Your task to perform on an android device: change text size in settings app Image 0: 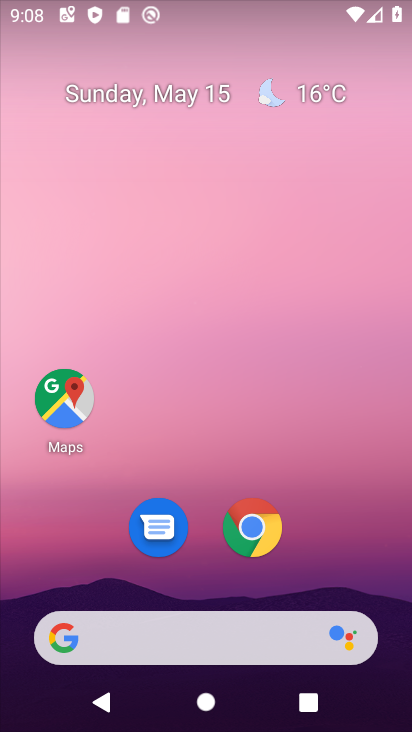
Step 0: drag from (396, 590) to (315, 12)
Your task to perform on an android device: change text size in settings app Image 1: 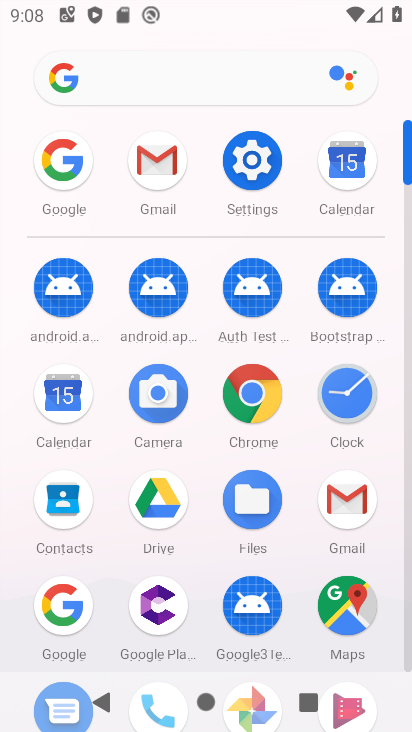
Step 1: click (254, 165)
Your task to perform on an android device: change text size in settings app Image 2: 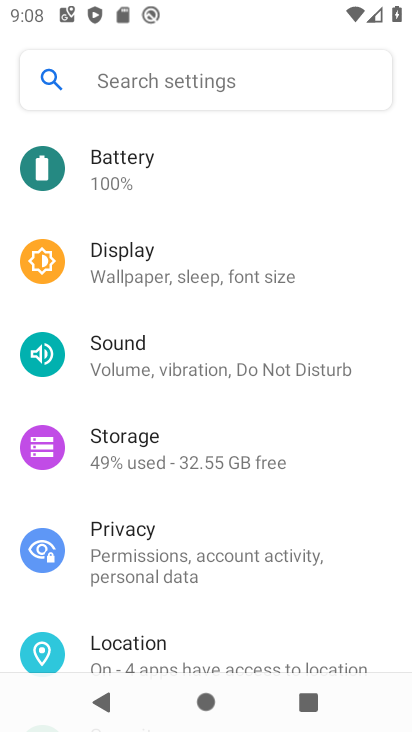
Step 2: click (95, 273)
Your task to perform on an android device: change text size in settings app Image 3: 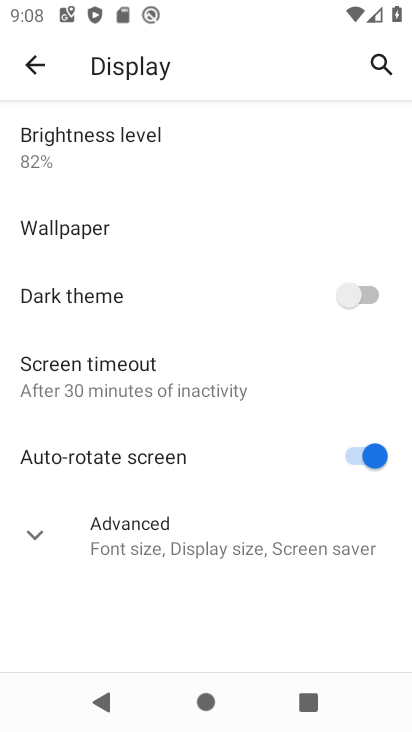
Step 3: click (33, 550)
Your task to perform on an android device: change text size in settings app Image 4: 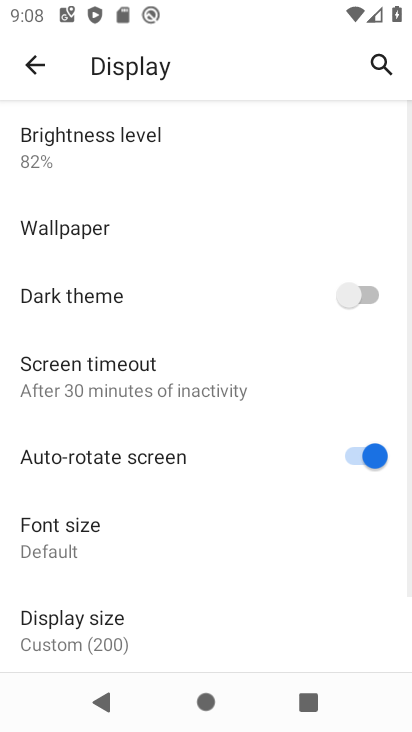
Step 4: click (33, 550)
Your task to perform on an android device: change text size in settings app Image 5: 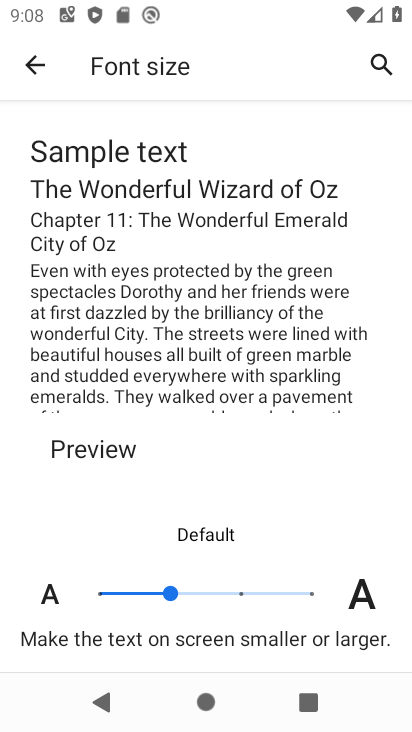
Step 5: click (237, 590)
Your task to perform on an android device: change text size in settings app Image 6: 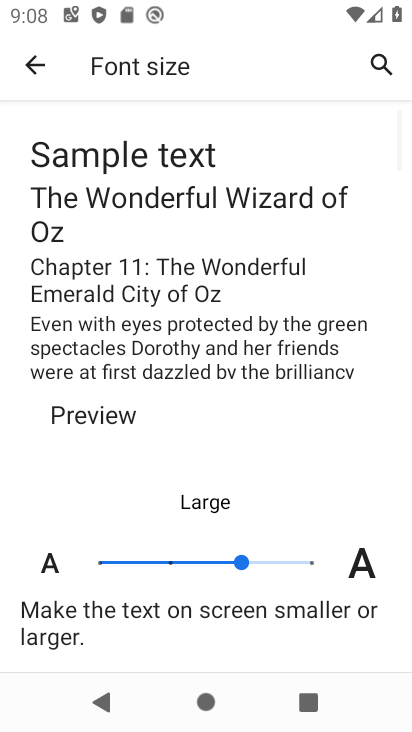
Step 6: task complete